Your task to perform on an android device: Go to sound settings Image 0: 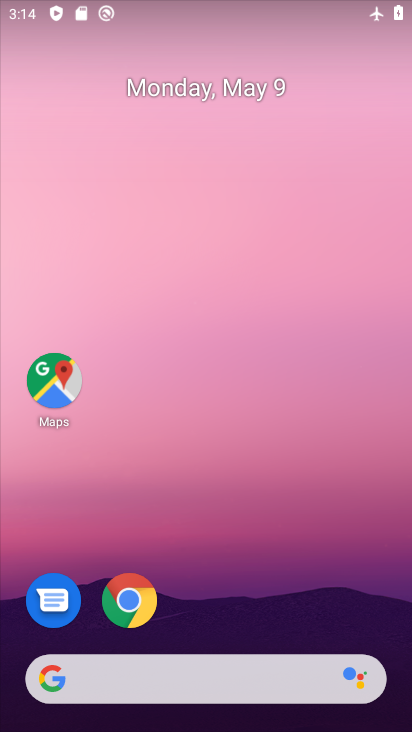
Step 0: drag from (271, 565) to (347, 4)
Your task to perform on an android device: Go to sound settings Image 1: 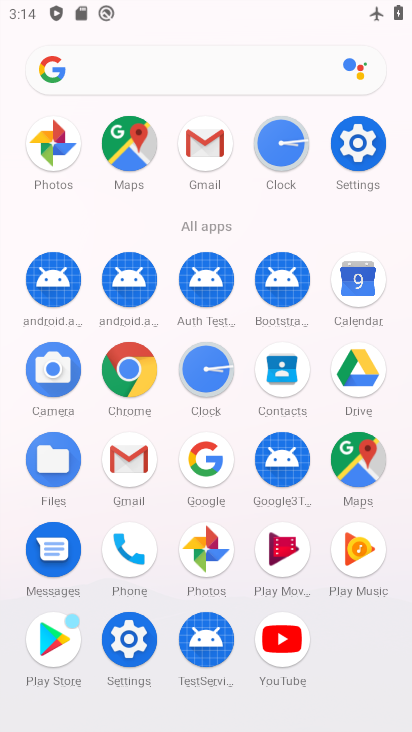
Step 1: click (371, 154)
Your task to perform on an android device: Go to sound settings Image 2: 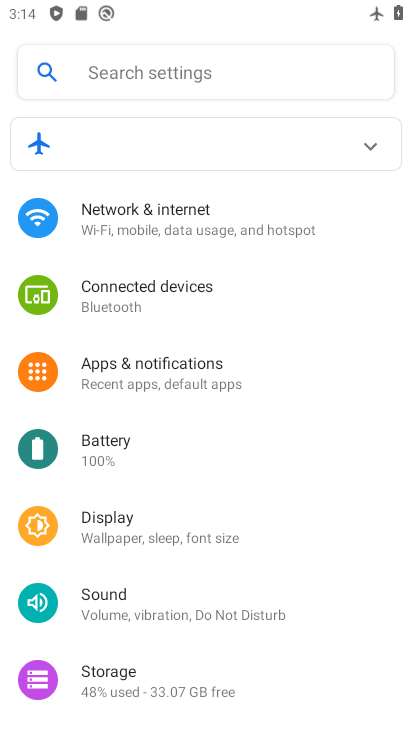
Step 2: click (124, 589)
Your task to perform on an android device: Go to sound settings Image 3: 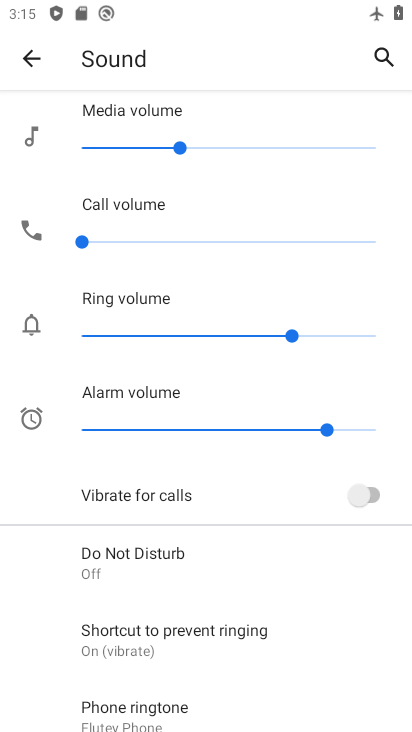
Step 3: task complete